Your task to perform on an android device: What is the news today? Image 0: 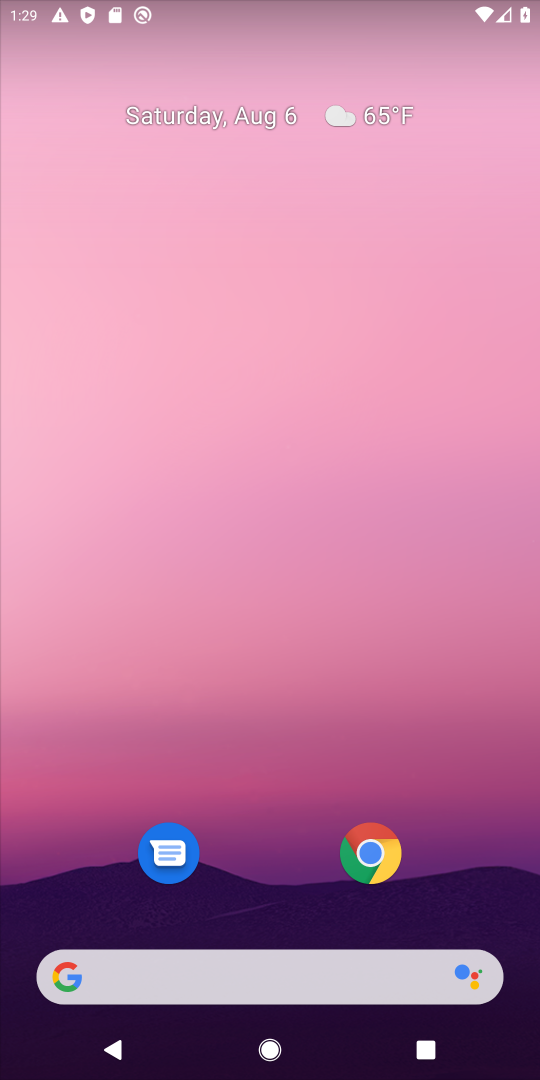
Step 0: drag from (11, 442) to (522, 480)
Your task to perform on an android device: What is the news today? Image 1: 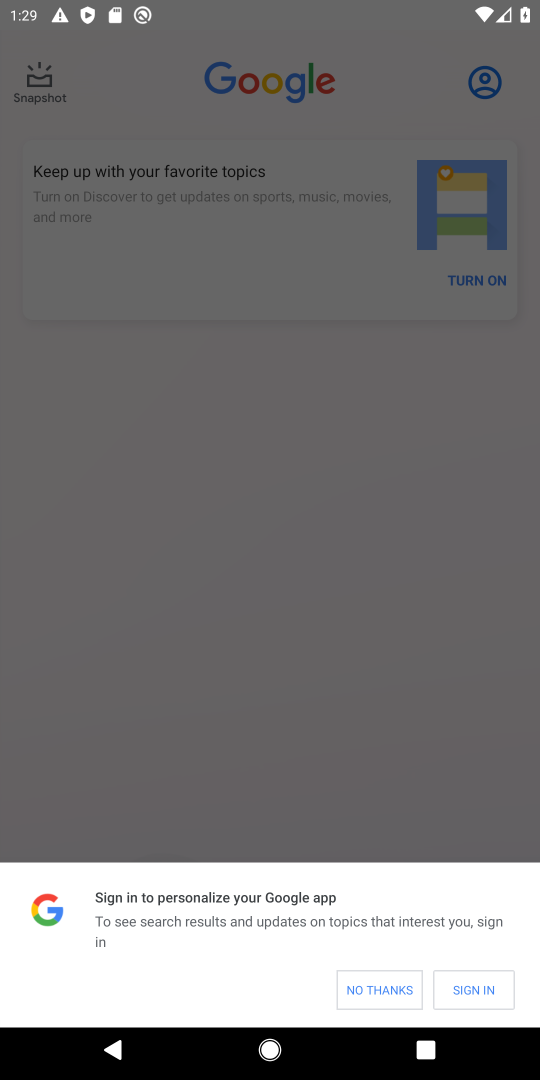
Step 1: click (359, 984)
Your task to perform on an android device: What is the news today? Image 2: 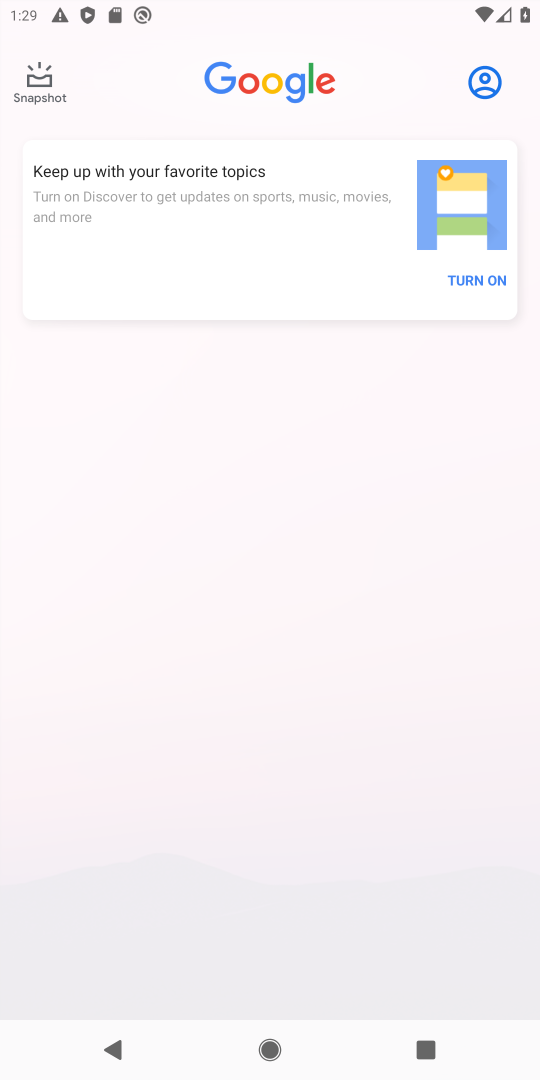
Step 2: click (467, 279)
Your task to perform on an android device: What is the news today? Image 3: 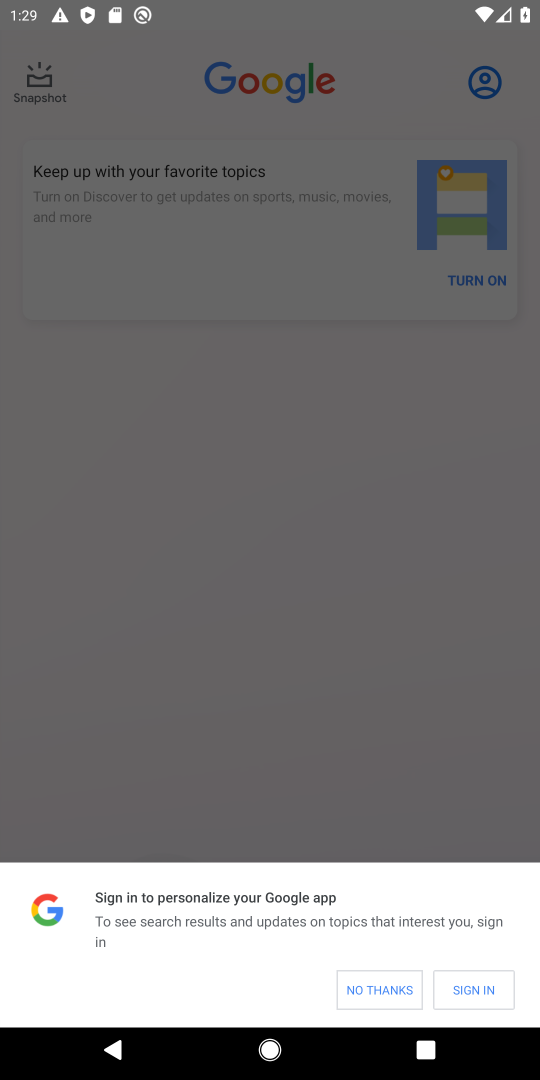
Step 3: click (372, 981)
Your task to perform on an android device: What is the news today? Image 4: 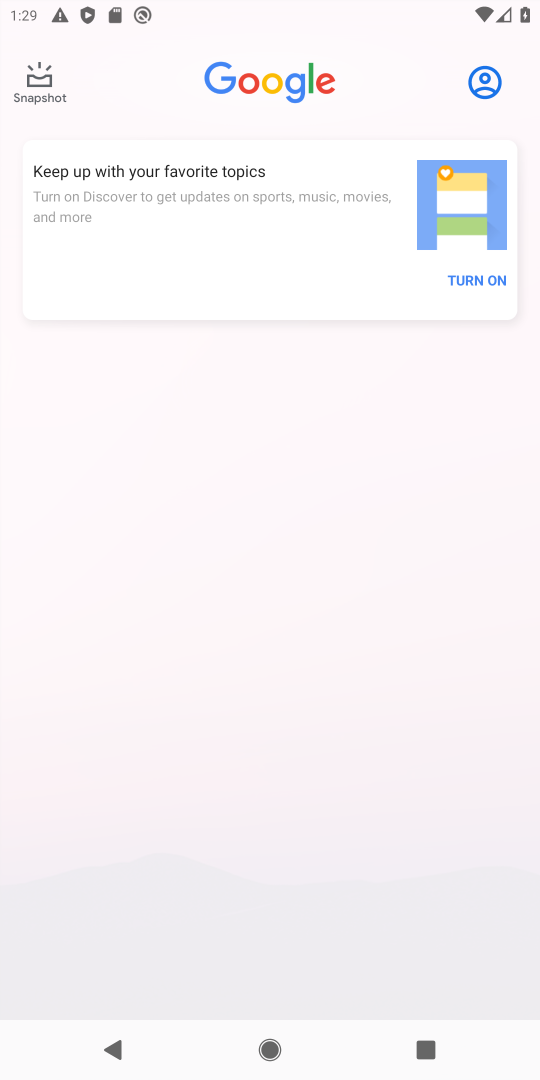
Step 4: task complete